Your task to perform on an android device: What's the weather like in Hong Kong? Image 0: 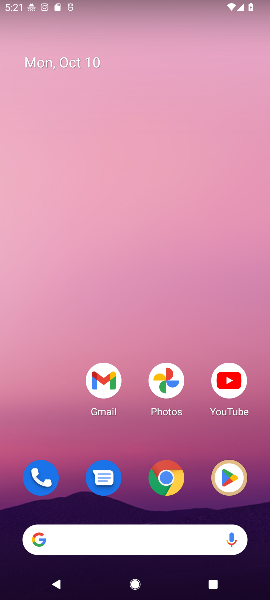
Step 0: click (166, 479)
Your task to perform on an android device: What's the weather like in Hong Kong? Image 1: 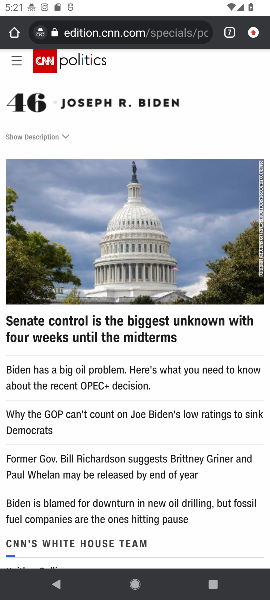
Step 1: click (122, 30)
Your task to perform on an android device: What's the weather like in Hong Kong? Image 2: 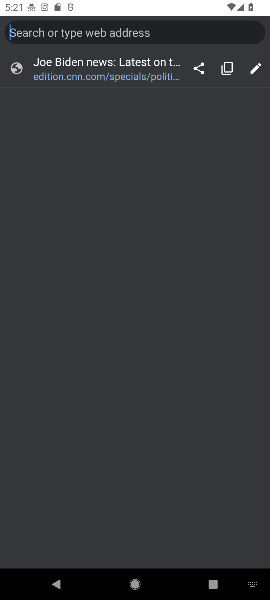
Step 2: type "What's the weather like in Hong Kong?"
Your task to perform on an android device: What's the weather like in Hong Kong? Image 3: 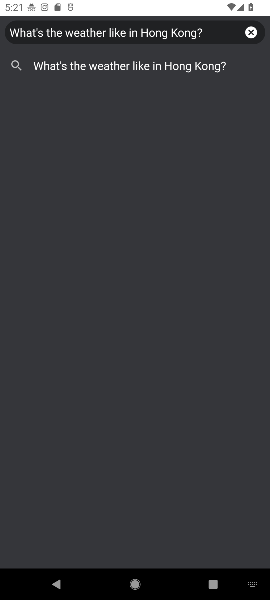
Step 3: click (112, 68)
Your task to perform on an android device: What's the weather like in Hong Kong? Image 4: 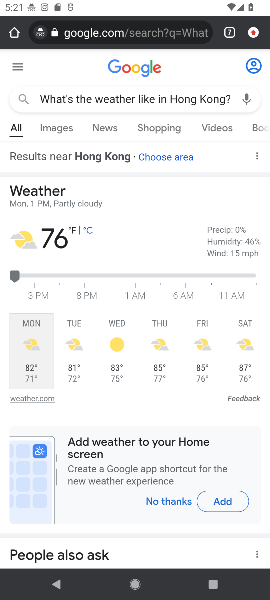
Step 4: task complete